Your task to perform on an android device: turn off airplane mode Image 0: 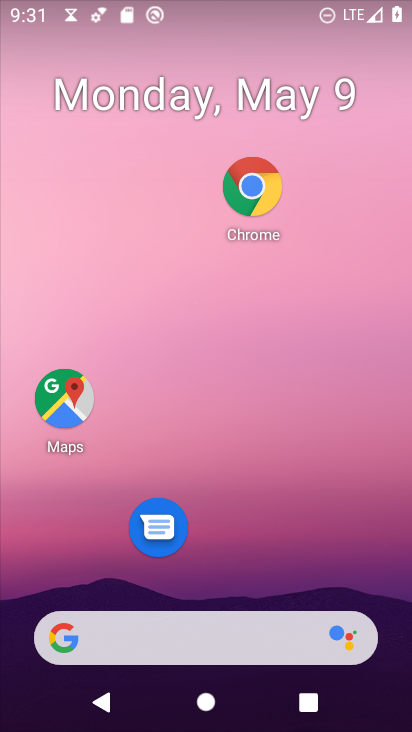
Step 0: drag from (229, 11) to (263, 525)
Your task to perform on an android device: turn off airplane mode Image 1: 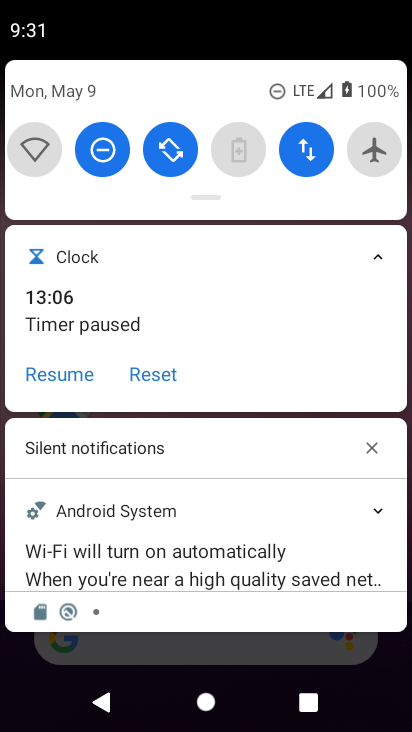
Step 1: task complete